Your task to perform on an android device: Open the Play Movies app and select the watchlist tab. Image 0: 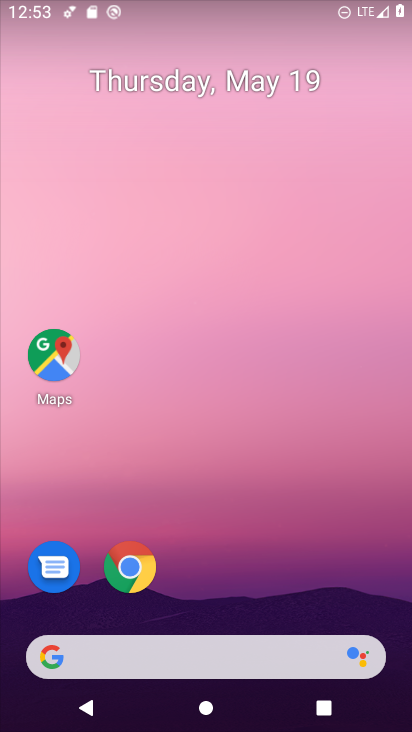
Step 0: drag from (294, 587) to (208, 57)
Your task to perform on an android device: Open the Play Movies app and select the watchlist tab. Image 1: 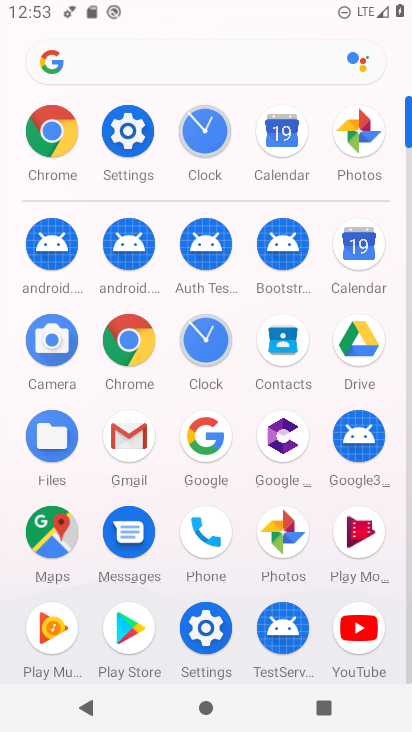
Step 1: click (355, 540)
Your task to perform on an android device: Open the Play Movies app and select the watchlist tab. Image 2: 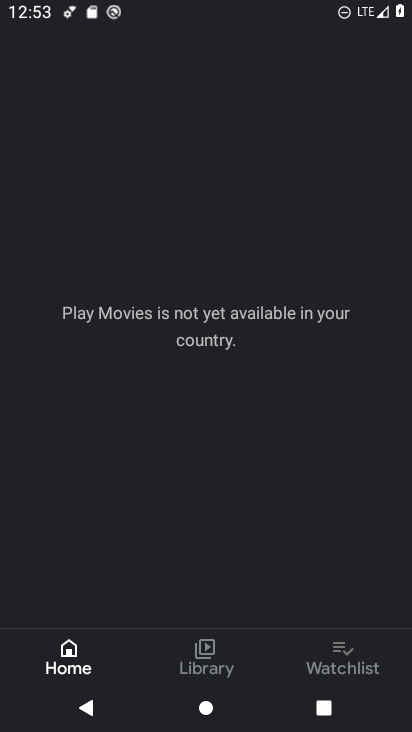
Step 2: click (360, 666)
Your task to perform on an android device: Open the Play Movies app and select the watchlist tab. Image 3: 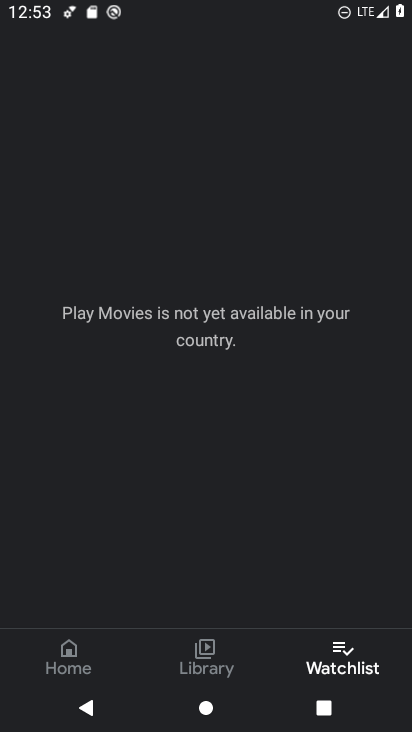
Step 3: task complete